Your task to perform on an android device: Search for Italian restaurants on Maps Image 0: 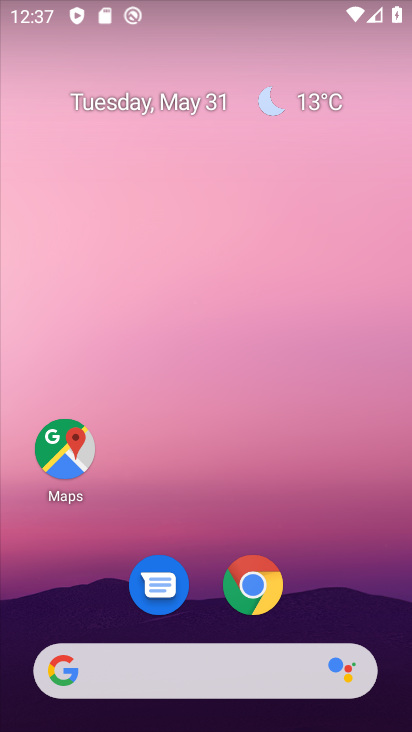
Step 0: click (74, 461)
Your task to perform on an android device: Search for Italian restaurants on Maps Image 1: 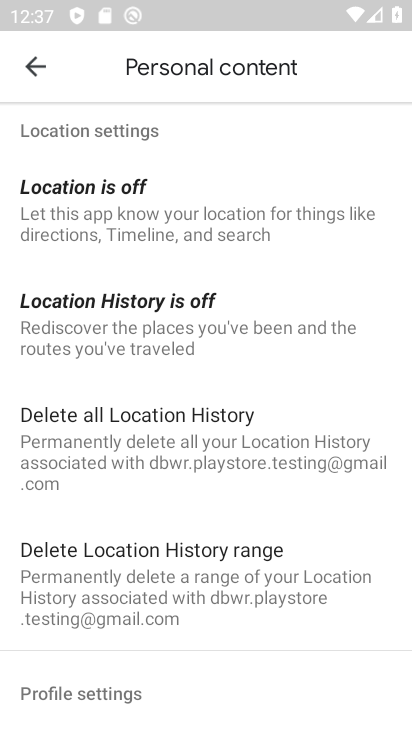
Step 1: click (39, 64)
Your task to perform on an android device: Search for Italian restaurants on Maps Image 2: 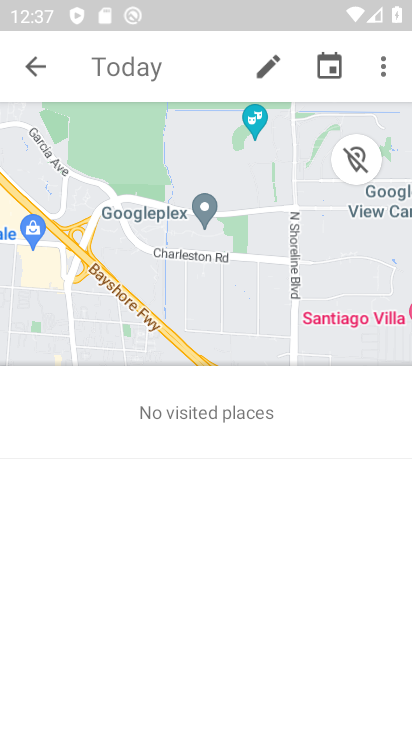
Step 2: click (39, 64)
Your task to perform on an android device: Search for Italian restaurants on Maps Image 3: 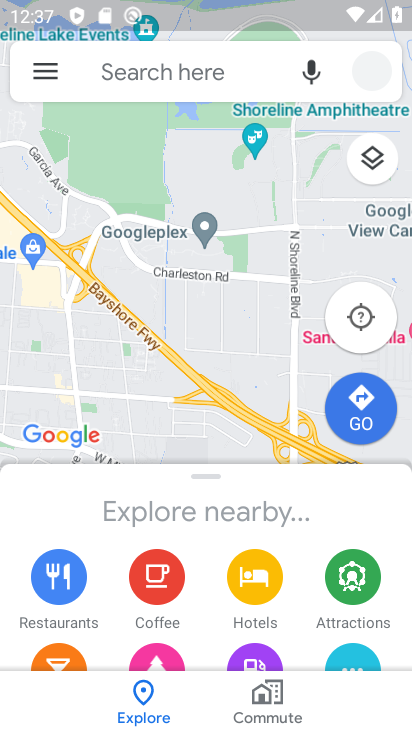
Step 3: click (106, 62)
Your task to perform on an android device: Search for Italian restaurants on Maps Image 4: 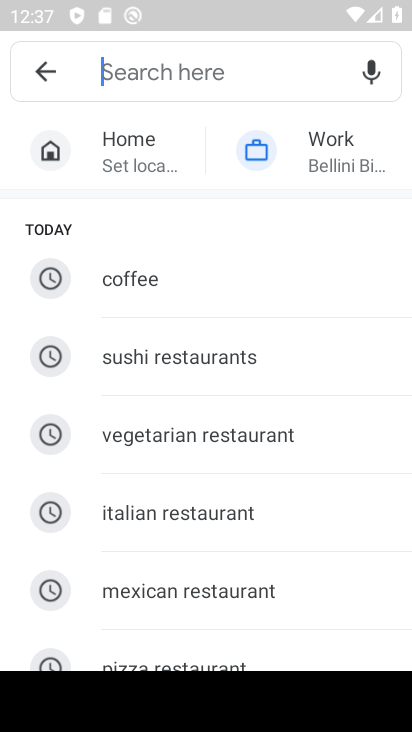
Step 4: click (160, 509)
Your task to perform on an android device: Search for Italian restaurants on Maps Image 5: 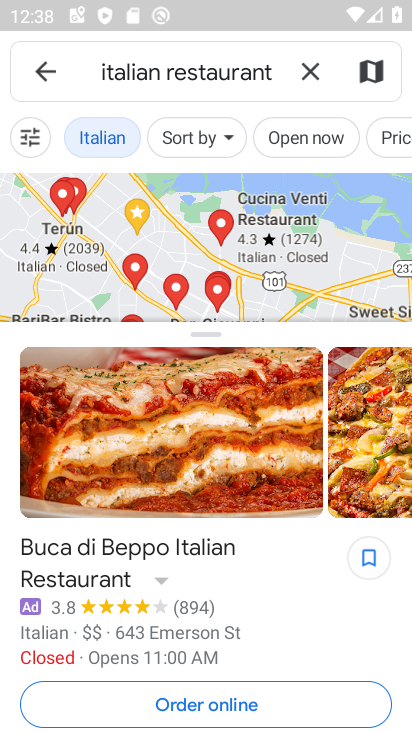
Step 5: task complete